Your task to perform on an android device: Go to network settings Image 0: 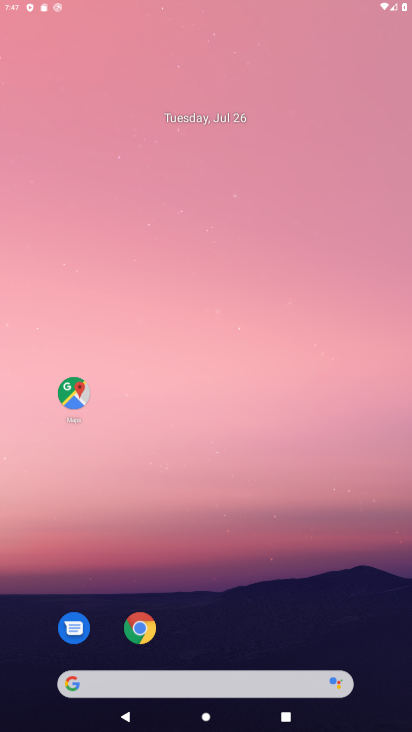
Step 0: press home button
Your task to perform on an android device: Go to network settings Image 1: 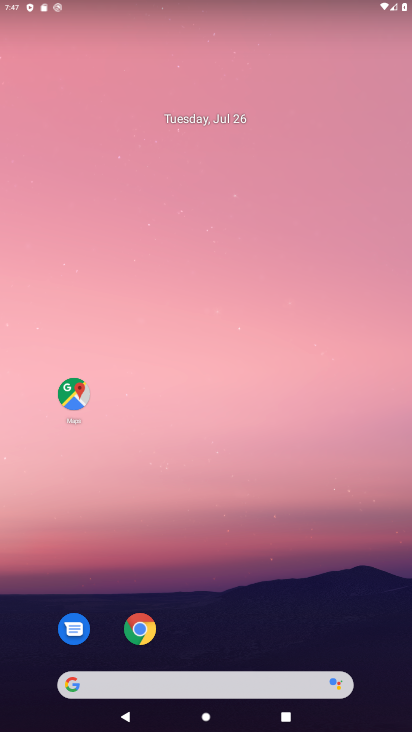
Step 1: drag from (217, 648) to (264, 127)
Your task to perform on an android device: Go to network settings Image 2: 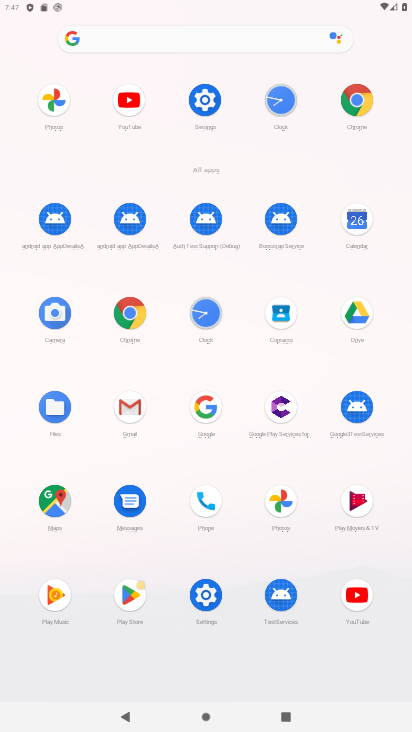
Step 2: click (202, 92)
Your task to perform on an android device: Go to network settings Image 3: 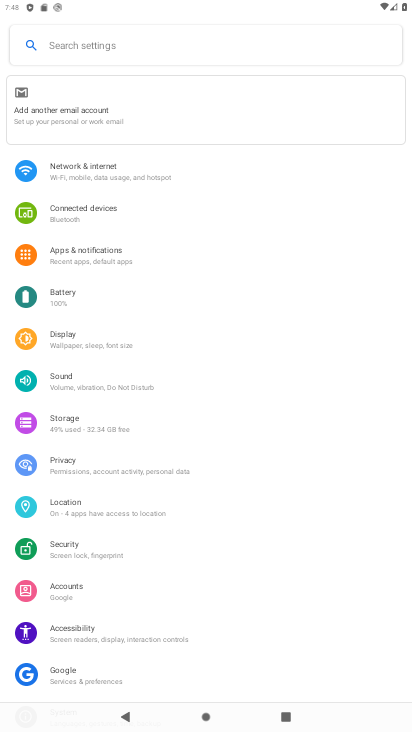
Step 3: click (133, 168)
Your task to perform on an android device: Go to network settings Image 4: 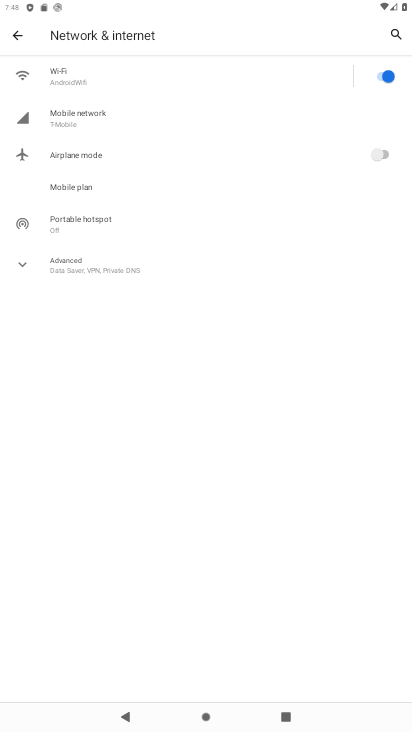
Step 4: click (23, 263)
Your task to perform on an android device: Go to network settings Image 5: 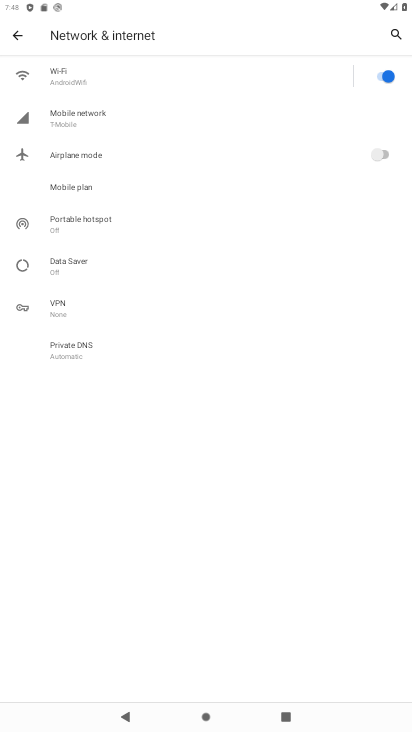
Step 5: task complete